Your task to perform on an android device: Show me recent news Image 0: 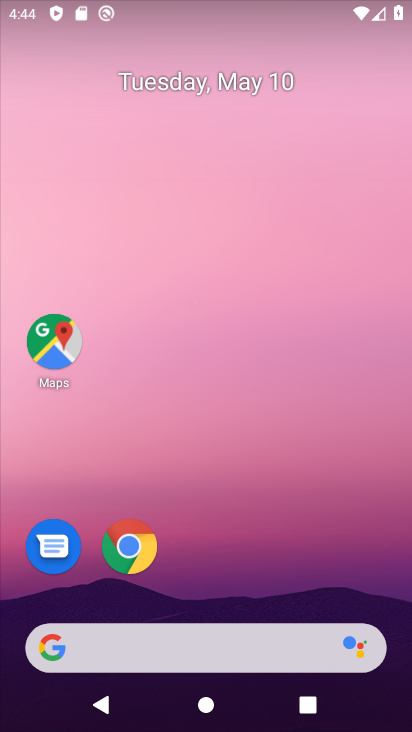
Step 0: drag from (269, 707) to (203, 139)
Your task to perform on an android device: Show me recent news Image 1: 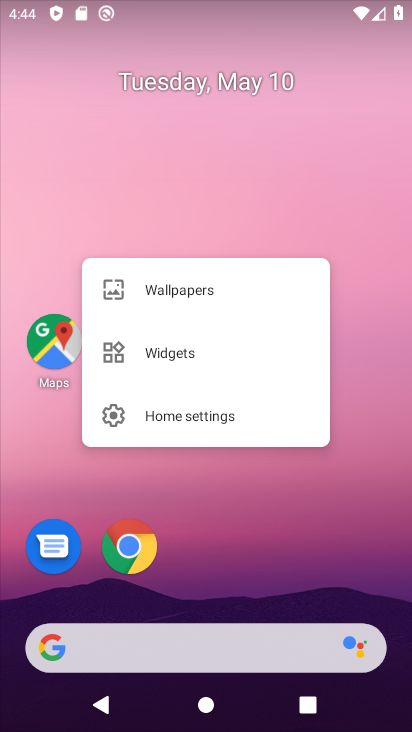
Step 1: click (219, 198)
Your task to perform on an android device: Show me recent news Image 2: 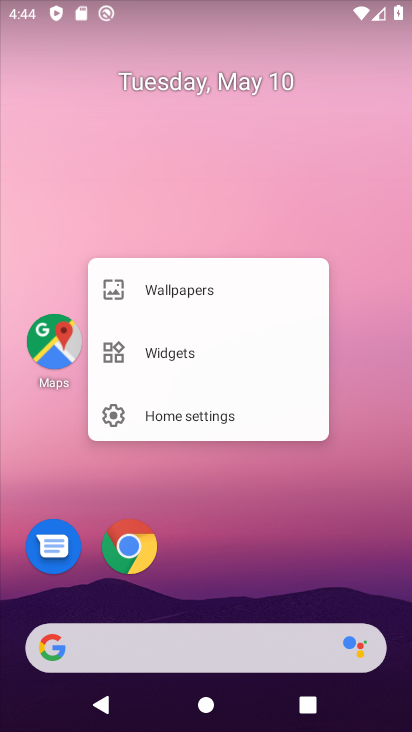
Step 2: click (219, 194)
Your task to perform on an android device: Show me recent news Image 3: 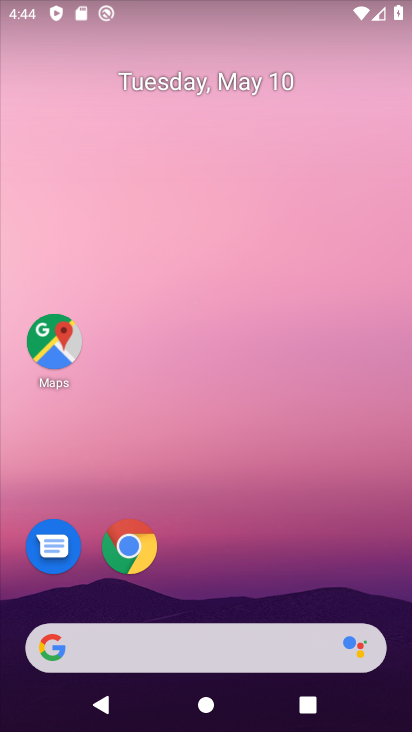
Step 3: task complete